Your task to perform on an android device: Open Maps and search for coffee Image 0: 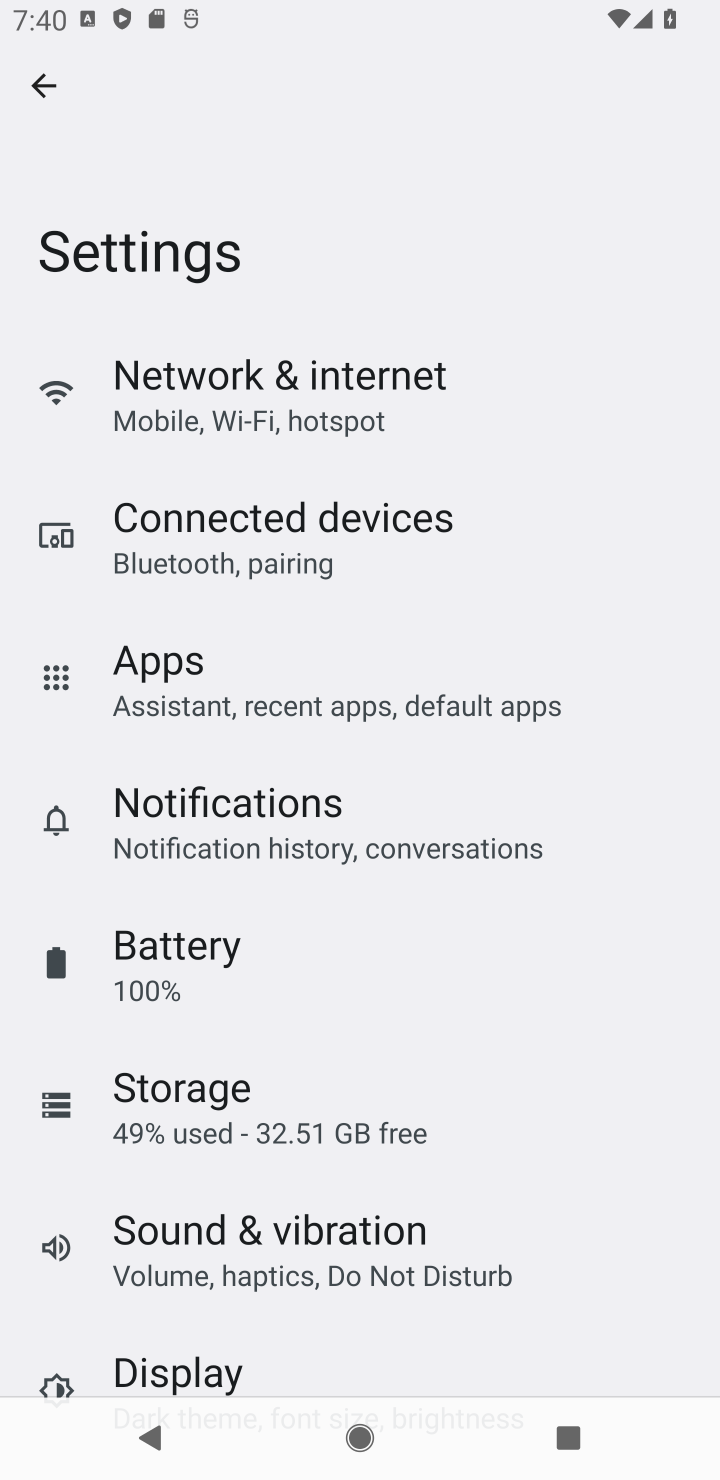
Step 0: press home button
Your task to perform on an android device: Open Maps and search for coffee Image 1: 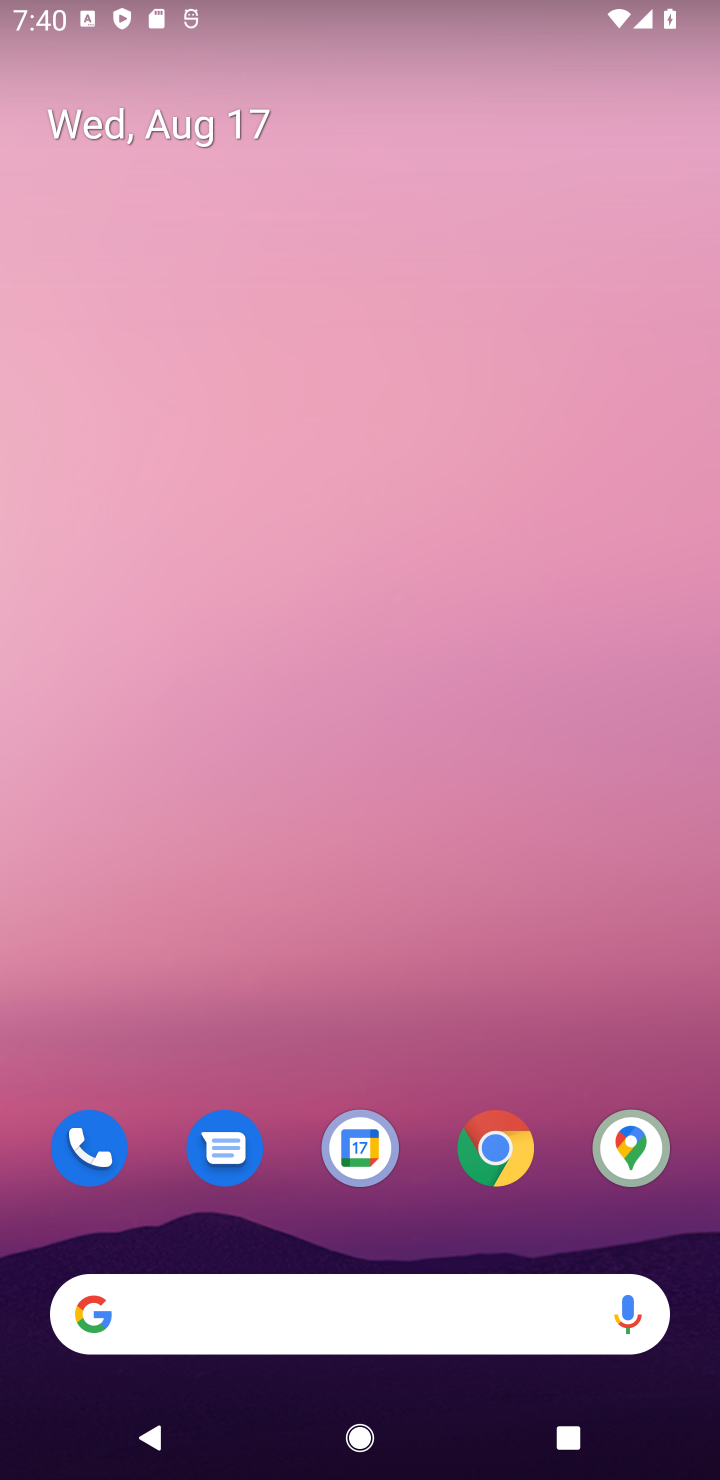
Step 1: click (637, 1141)
Your task to perform on an android device: Open Maps and search for coffee Image 2: 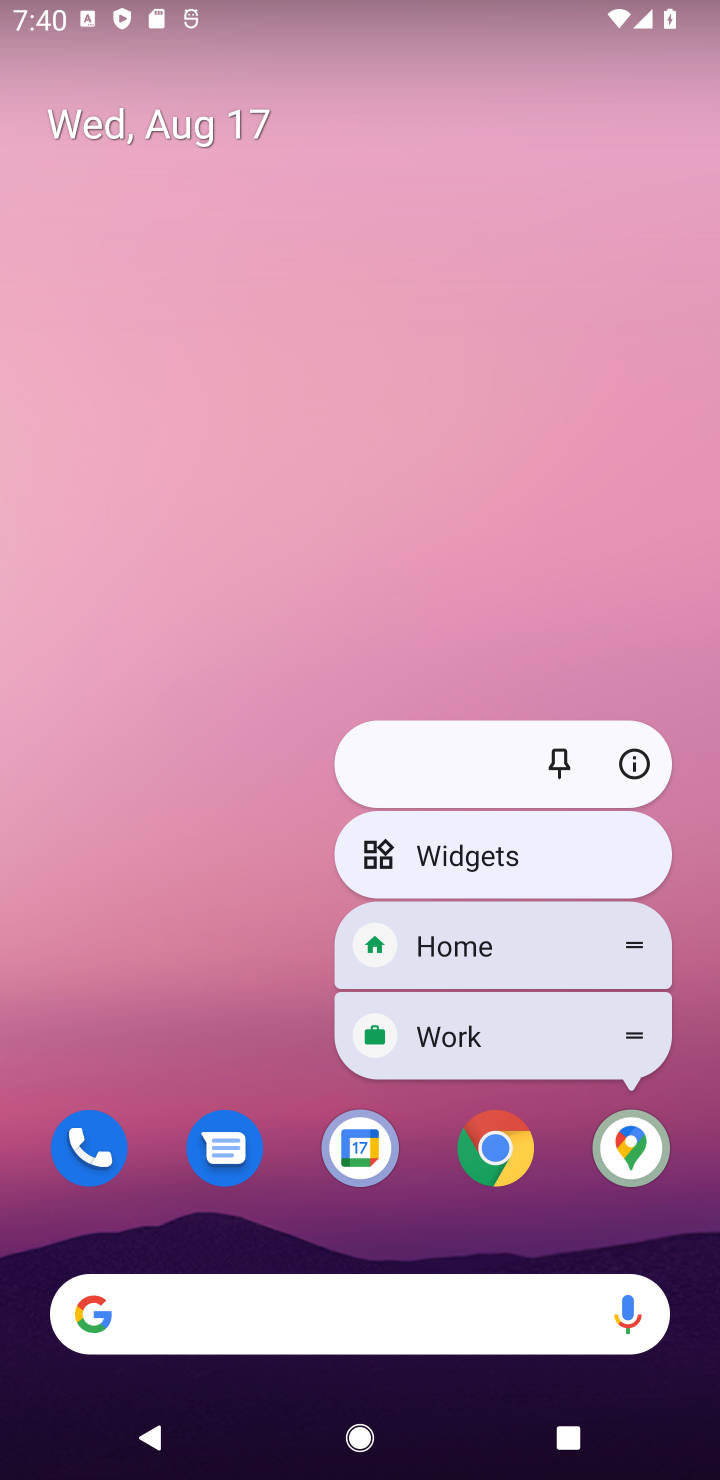
Step 2: click (633, 1141)
Your task to perform on an android device: Open Maps and search for coffee Image 3: 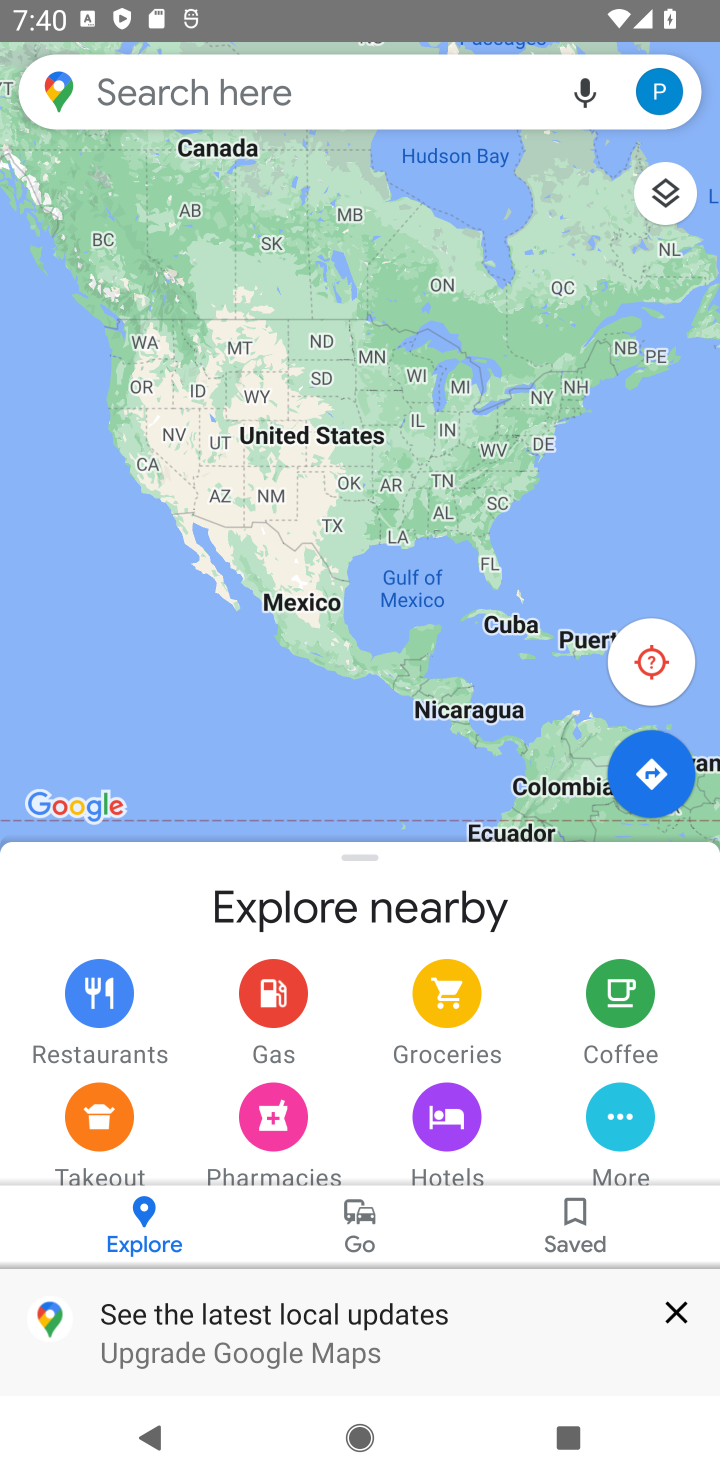
Step 3: click (266, 79)
Your task to perform on an android device: Open Maps and search for coffee Image 4: 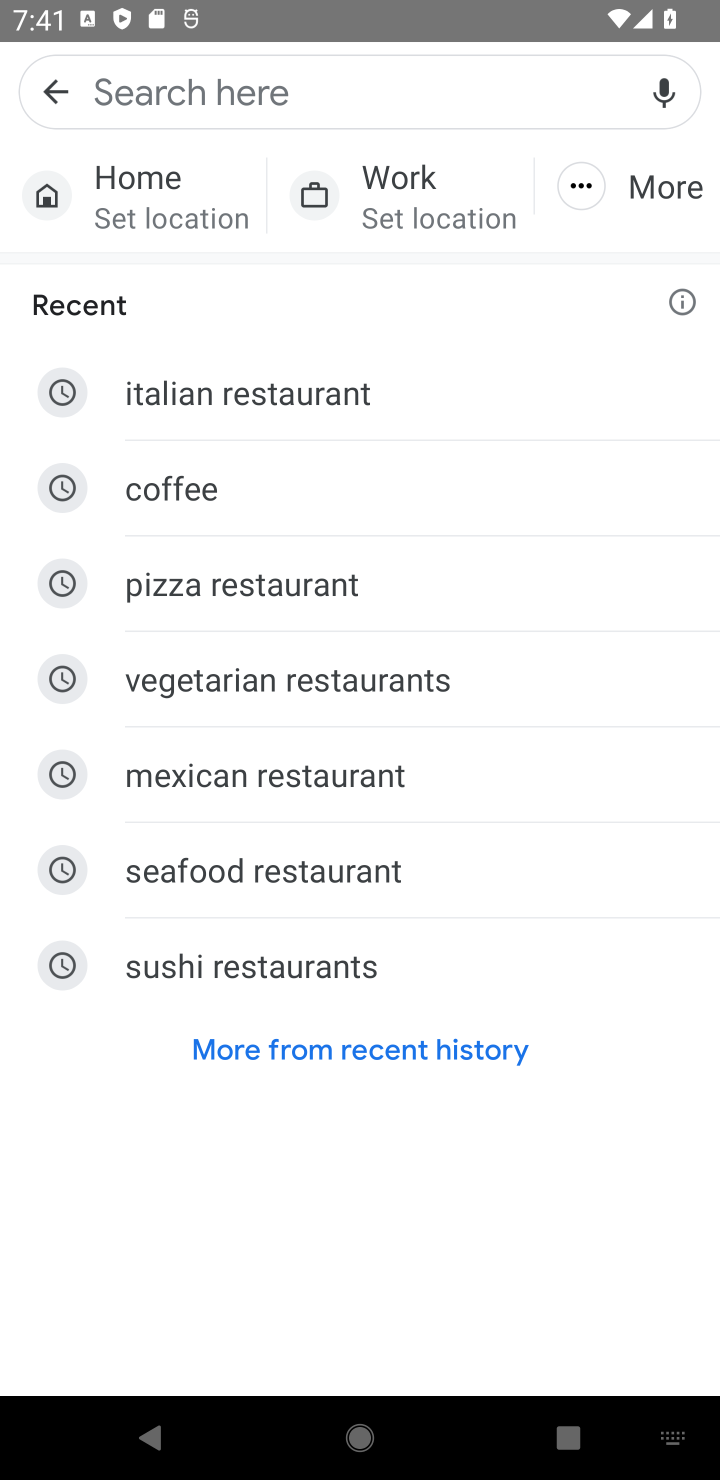
Step 4: type "coffee"
Your task to perform on an android device: Open Maps and search for coffee Image 5: 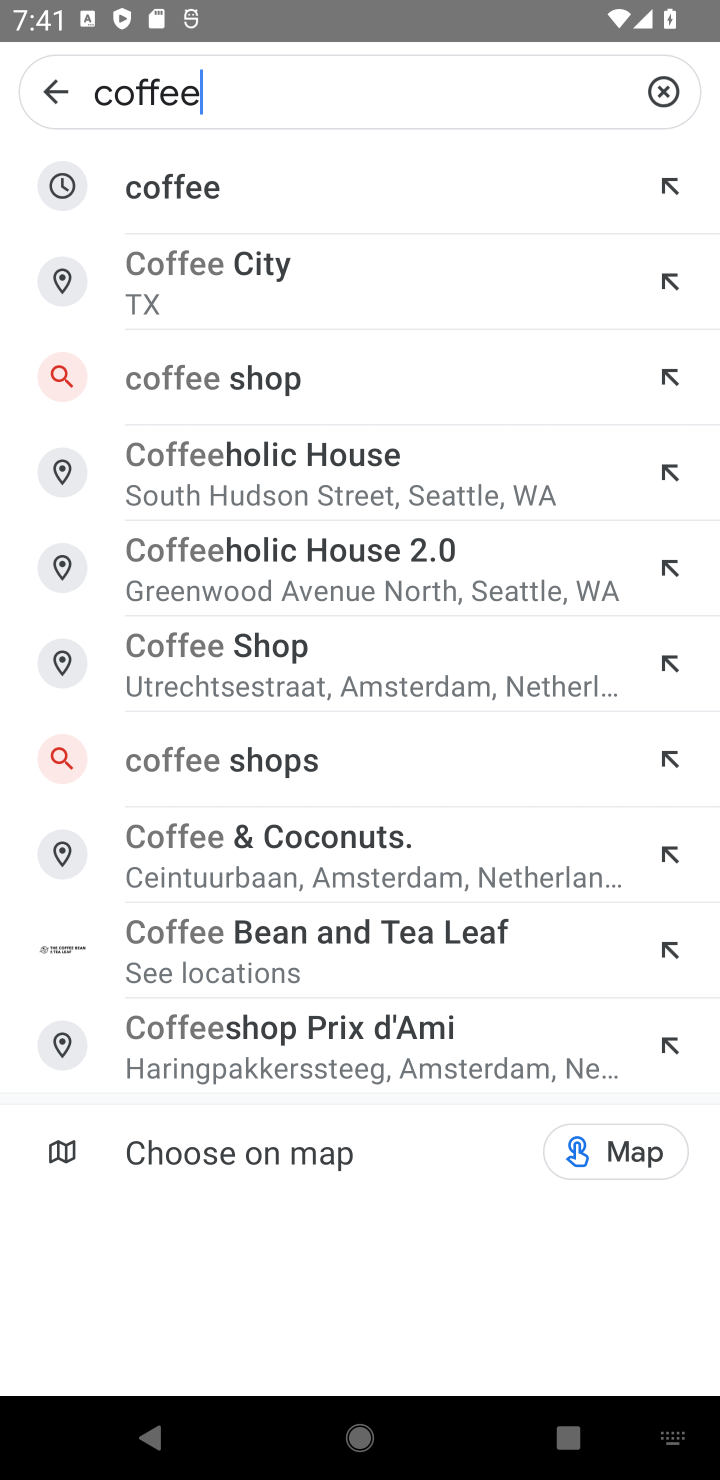
Step 5: click (188, 177)
Your task to perform on an android device: Open Maps and search for coffee Image 6: 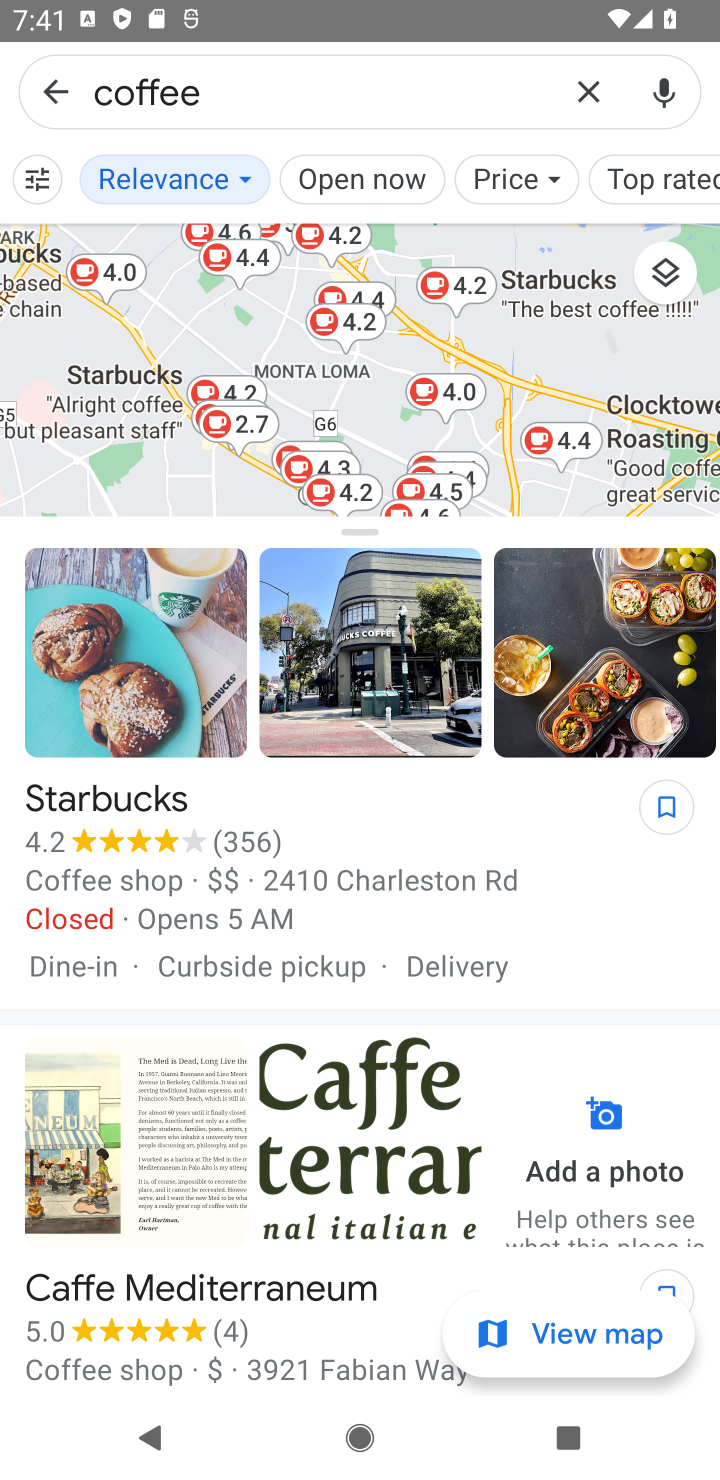
Step 6: task complete